Your task to perform on an android device: Search for seafood restaurants on Google Maps Image 0: 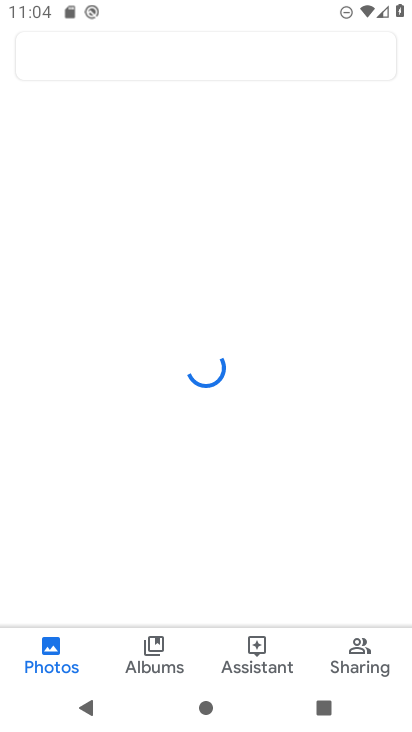
Step 0: press home button
Your task to perform on an android device: Search for seafood restaurants on Google Maps Image 1: 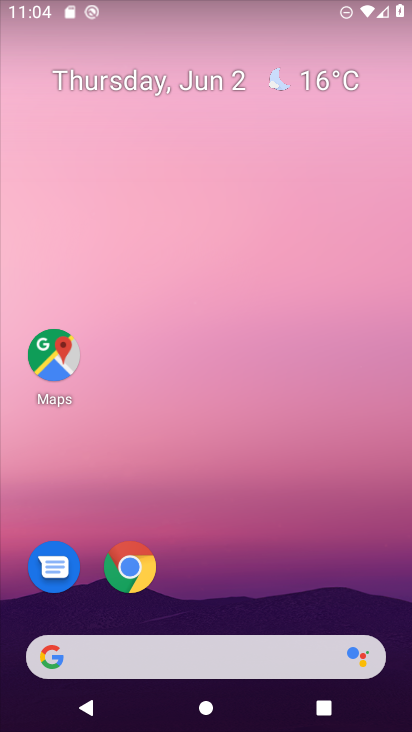
Step 1: click (60, 362)
Your task to perform on an android device: Search for seafood restaurants on Google Maps Image 2: 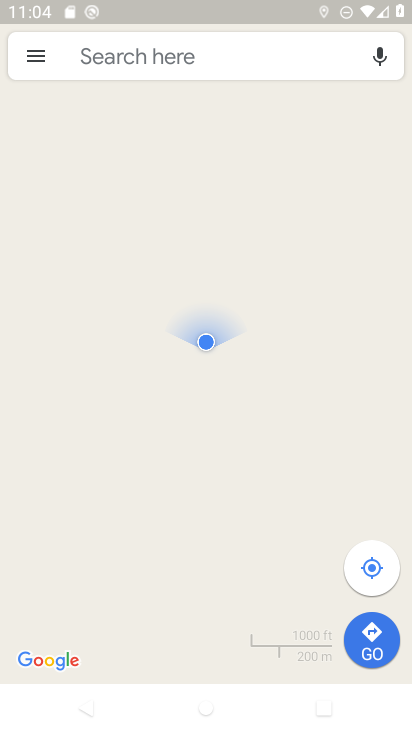
Step 2: click (228, 60)
Your task to perform on an android device: Search for seafood restaurants on Google Maps Image 3: 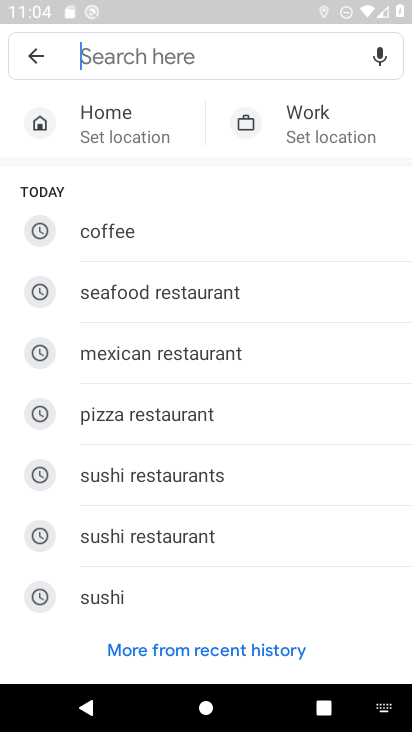
Step 3: type "seafood restaurants"
Your task to perform on an android device: Search for seafood restaurants on Google Maps Image 4: 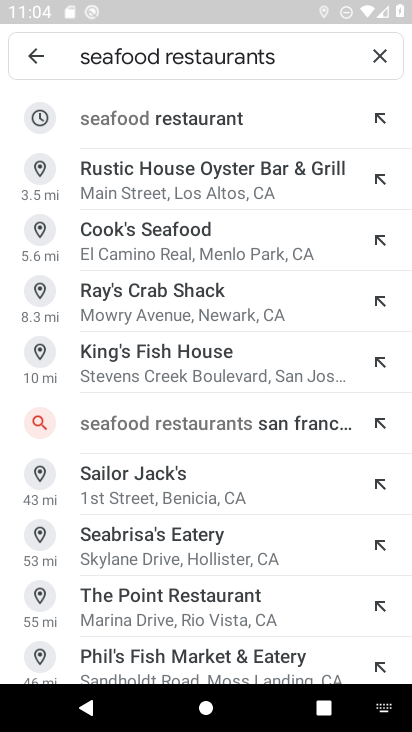
Step 4: press enter
Your task to perform on an android device: Search for seafood restaurants on Google Maps Image 5: 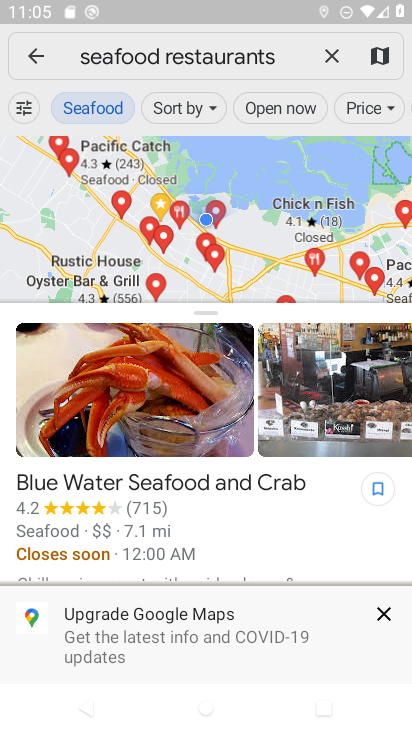
Step 5: task complete